Your task to perform on an android device: show emergency info Image 0: 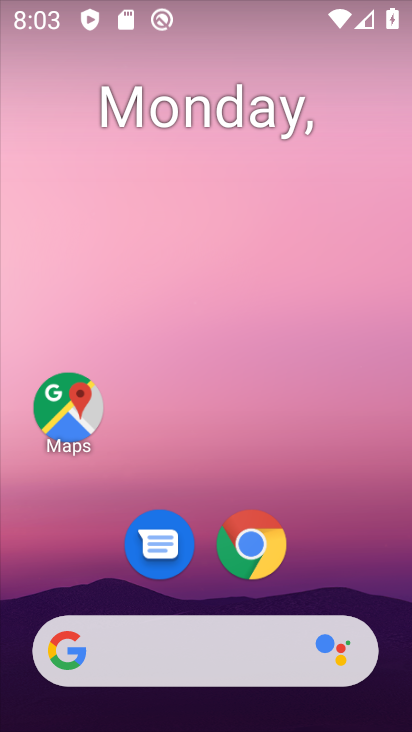
Step 0: drag from (228, 598) to (135, 4)
Your task to perform on an android device: show emergency info Image 1: 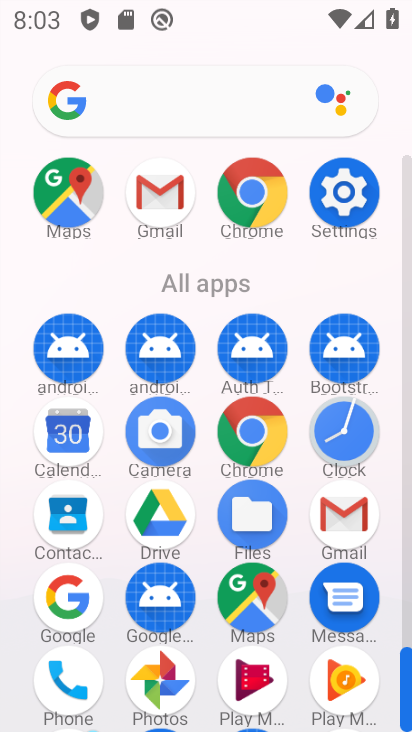
Step 1: click (364, 198)
Your task to perform on an android device: show emergency info Image 2: 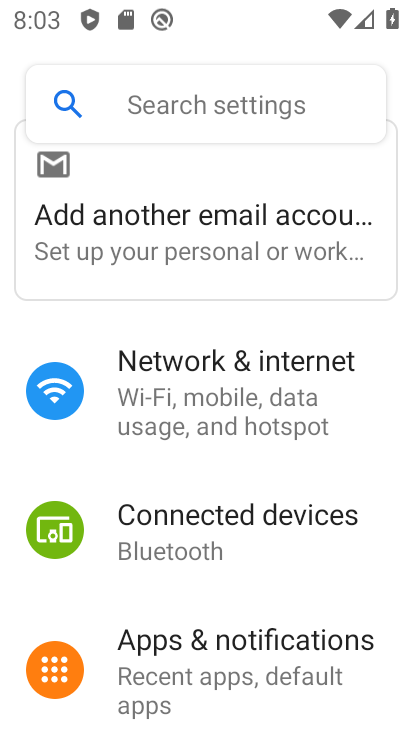
Step 2: drag from (251, 586) to (155, 11)
Your task to perform on an android device: show emergency info Image 3: 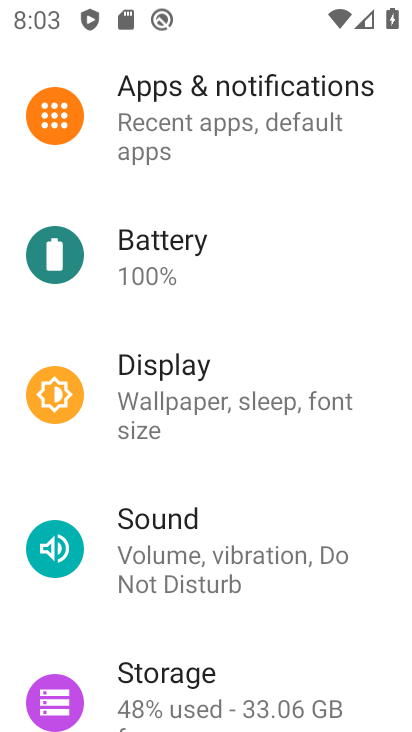
Step 3: drag from (256, 614) to (154, 12)
Your task to perform on an android device: show emergency info Image 4: 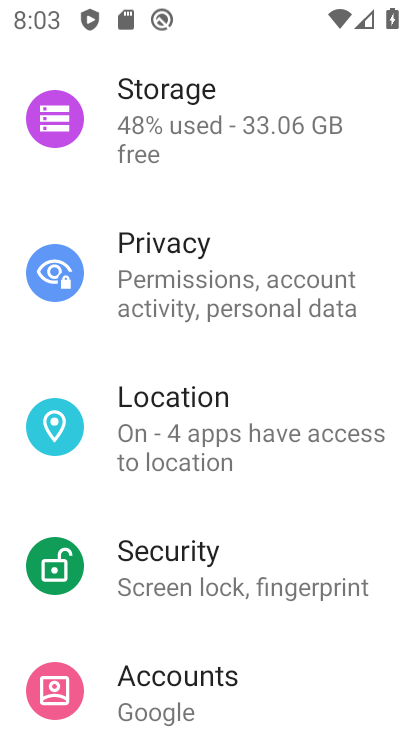
Step 4: drag from (222, 724) to (132, 3)
Your task to perform on an android device: show emergency info Image 5: 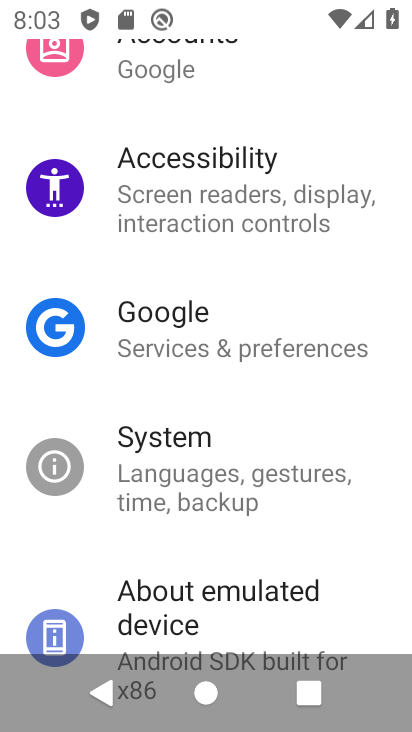
Step 5: click (245, 579)
Your task to perform on an android device: show emergency info Image 6: 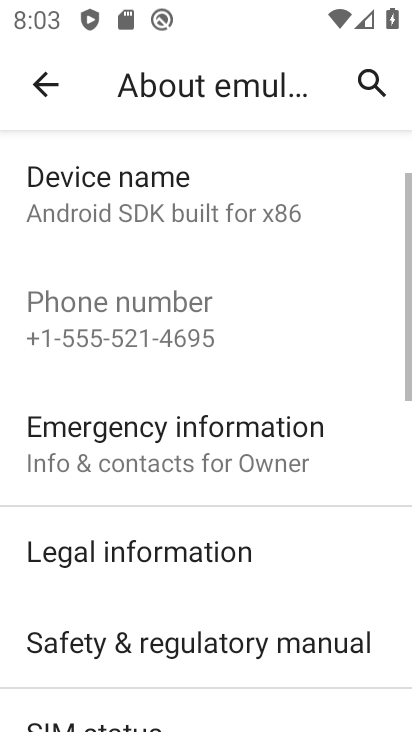
Step 6: click (177, 432)
Your task to perform on an android device: show emergency info Image 7: 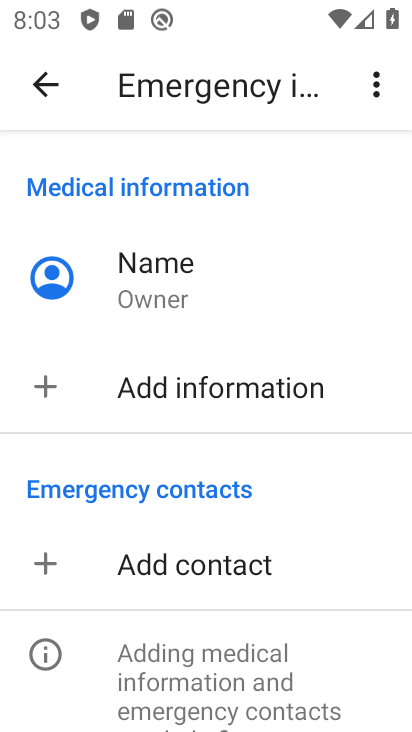
Step 7: task complete